Your task to perform on an android device: make emails show in primary in the gmail app Image 0: 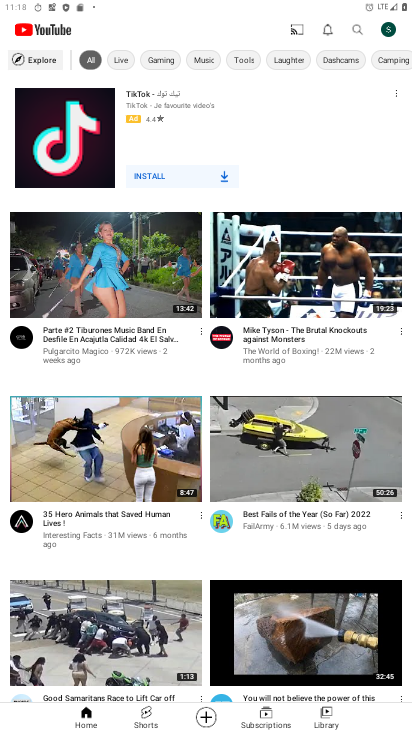
Step 0: press home button
Your task to perform on an android device: make emails show in primary in the gmail app Image 1: 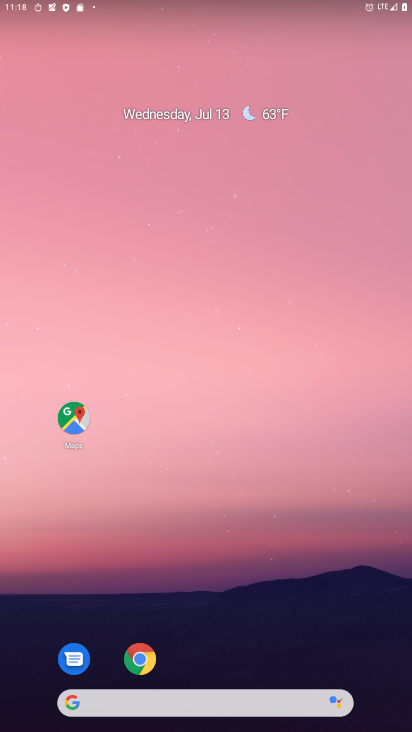
Step 1: drag from (337, 625) to (267, 100)
Your task to perform on an android device: make emails show in primary in the gmail app Image 2: 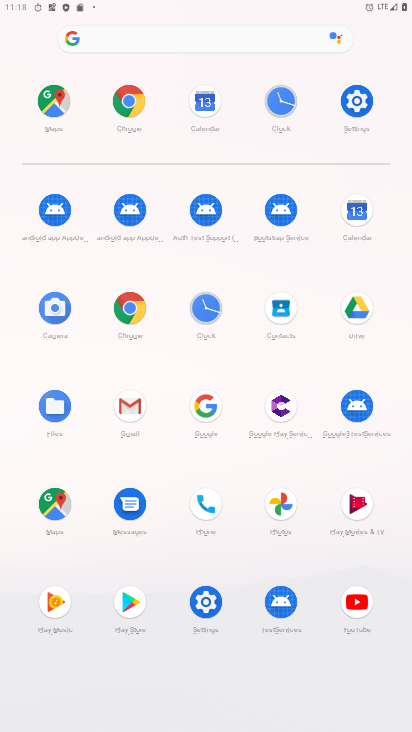
Step 2: click (129, 403)
Your task to perform on an android device: make emails show in primary in the gmail app Image 3: 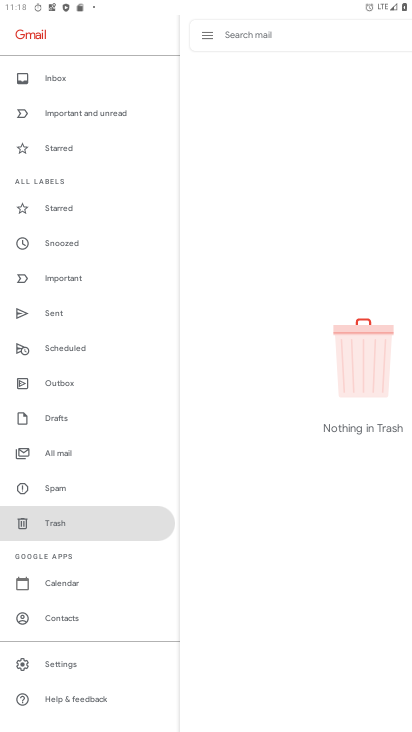
Step 3: click (75, 658)
Your task to perform on an android device: make emails show in primary in the gmail app Image 4: 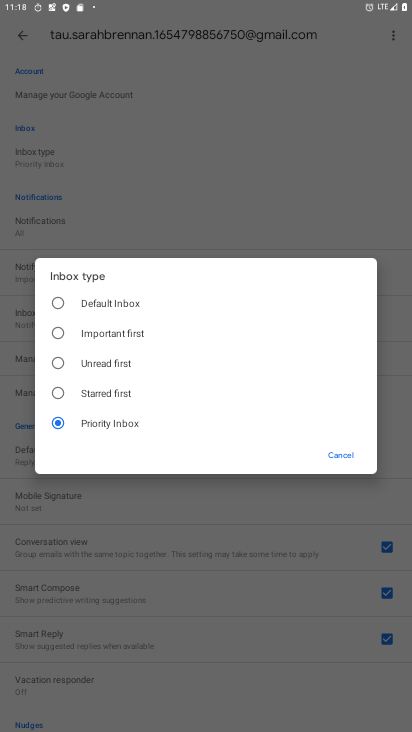
Step 4: click (114, 303)
Your task to perform on an android device: make emails show in primary in the gmail app Image 5: 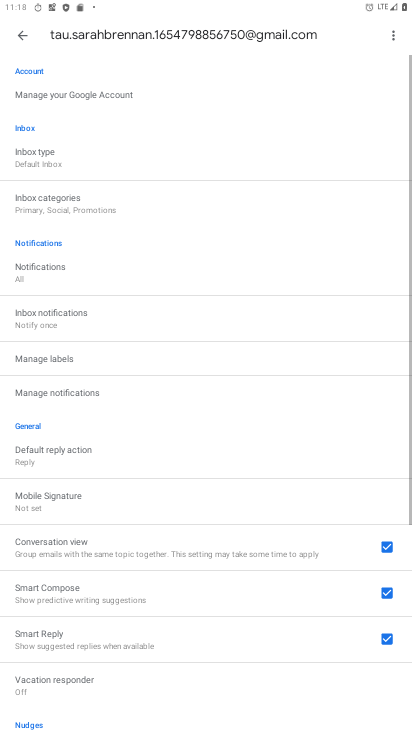
Step 5: click (59, 198)
Your task to perform on an android device: make emails show in primary in the gmail app Image 6: 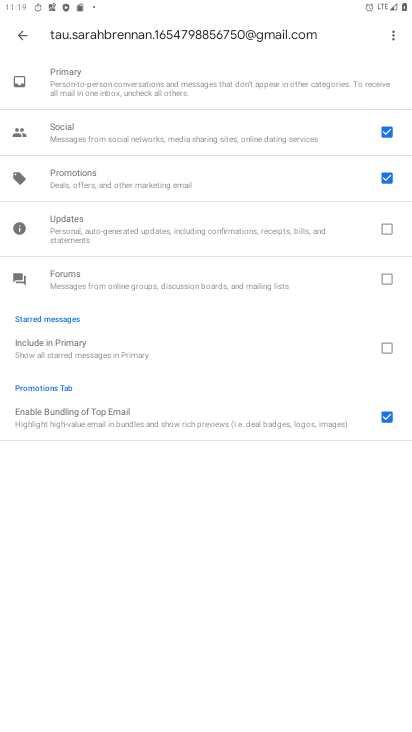
Step 6: task complete